Your task to perform on an android device: Set the phone to "Do not disturb". Image 0: 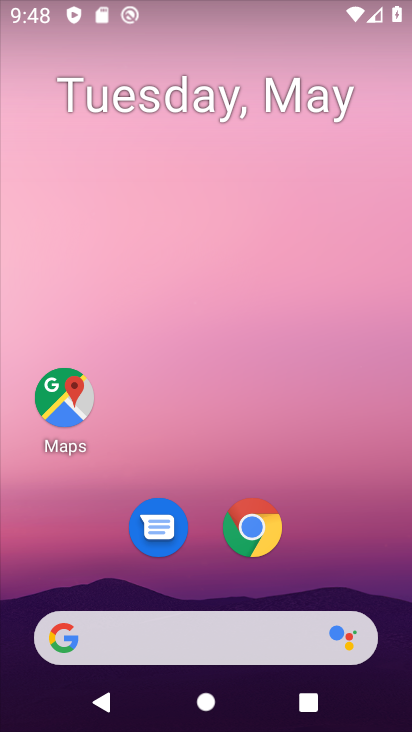
Step 0: drag from (317, 555) to (246, 65)
Your task to perform on an android device: Set the phone to "Do not disturb". Image 1: 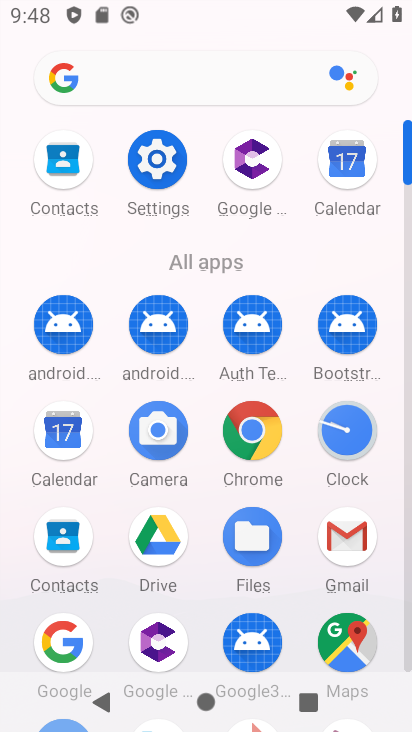
Step 1: click (158, 159)
Your task to perform on an android device: Set the phone to "Do not disturb". Image 2: 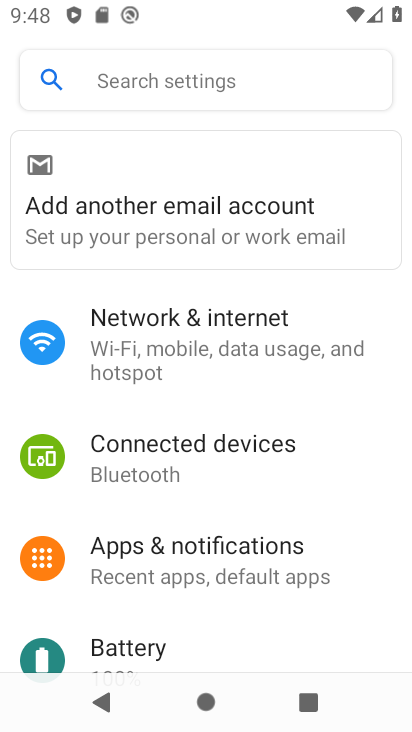
Step 2: drag from (163, 594) to (166, 411)
Your task to perform on an android device: Set the phone to "Do not disturb". Image 3: 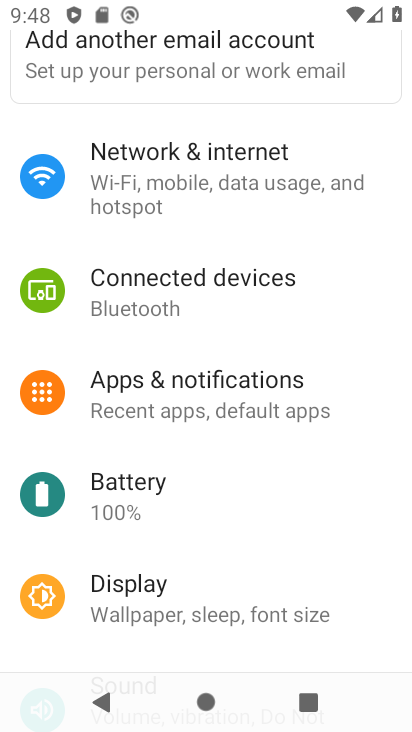
Step 3: drag from (200, 567) to (199, 409)
Your task to perform on an android device: Set the phone to "Do not disturb". Image 4: 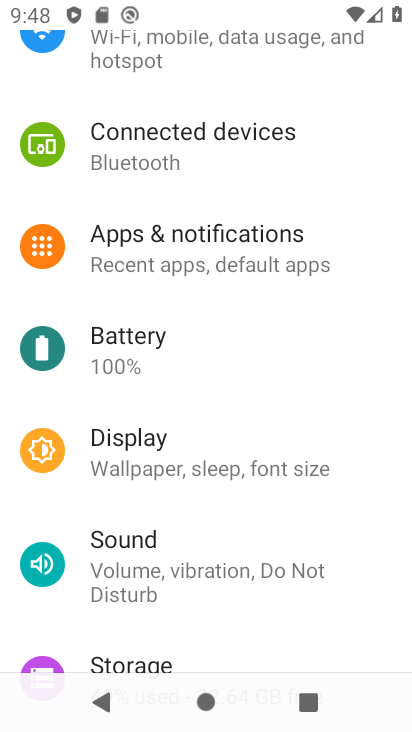
Step 4: click (120, 531)
Your task to perform on an android device: Set the phone to "Do not disturb". Image 5: 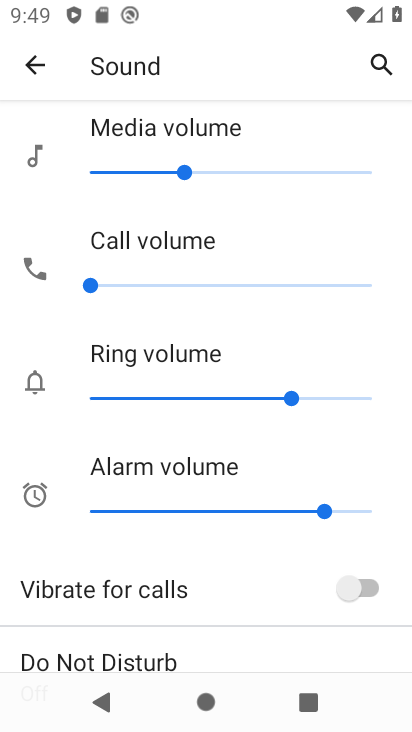
Step 5: drag from (205, 575) to (212, 448)
Your task to perform on an android device: Set the phone to "Do not disturb". Image 6: 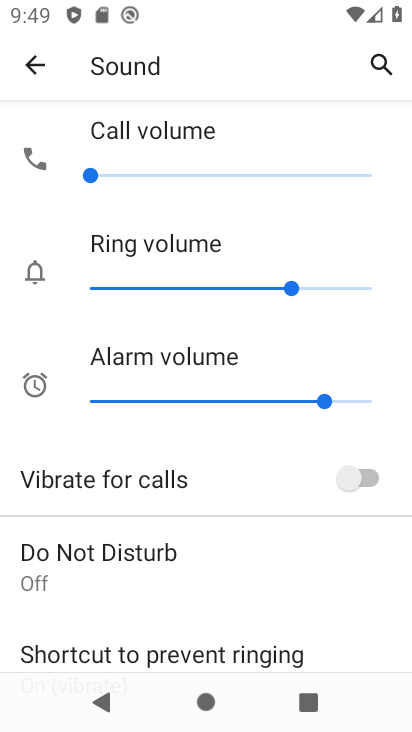
Step 6: click (127, 553)
Your task to perform on an android device: Set the phone to "Do not disturb". Image 7: 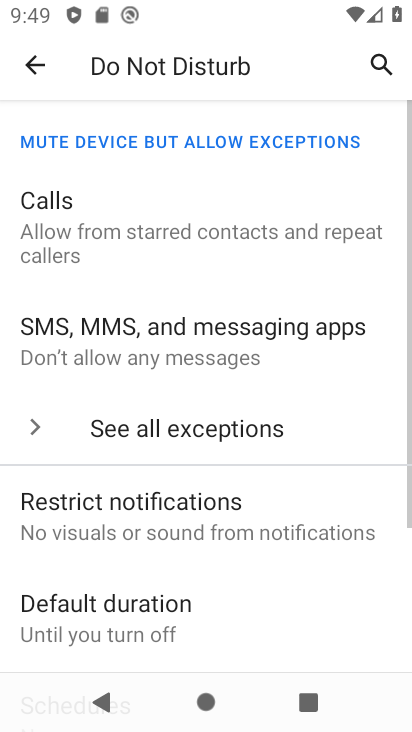
Step 7: drag from (177, 526) to (265, 381)
Your task to perform on an android device: Set the phone to "Do not disturb". Image 8: 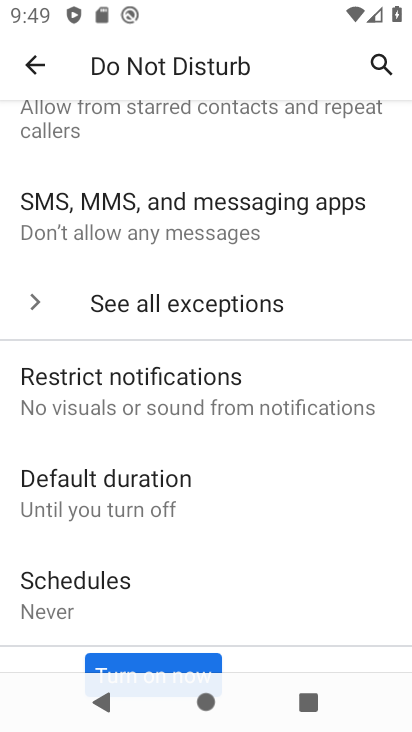
Step 8: drag from (204, 552) to (265, 402)
Your task to perform on an android device: Set the phone to "Do not disturb". Image 9: 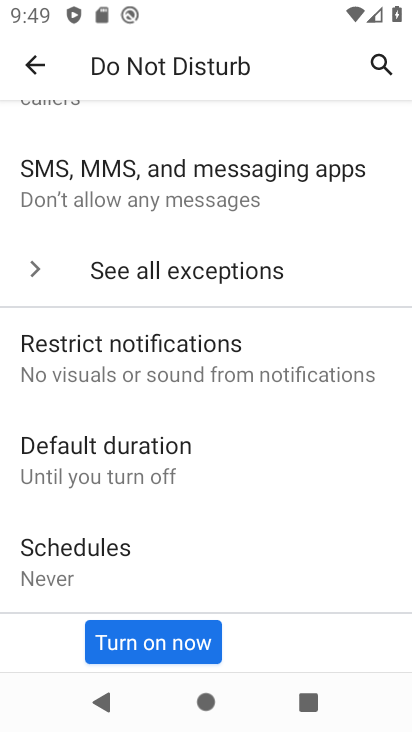
Step 9: click (149, 638)
Your task to perform on an android device: Set the phone to "Do not disturb". Image 10: 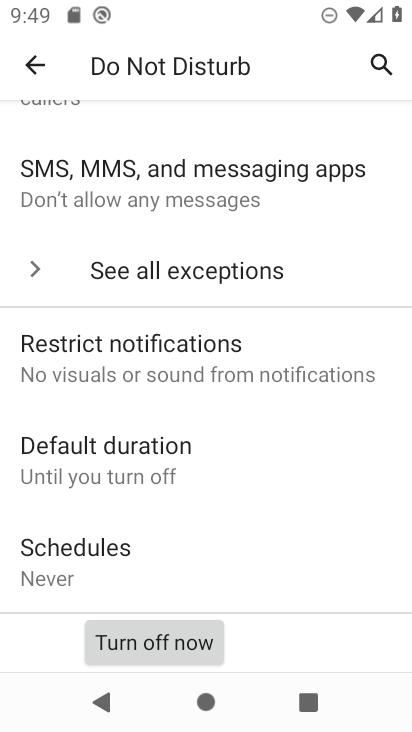
Step 10: task complete